Your task to perform on an android device: Open the map Image 0: 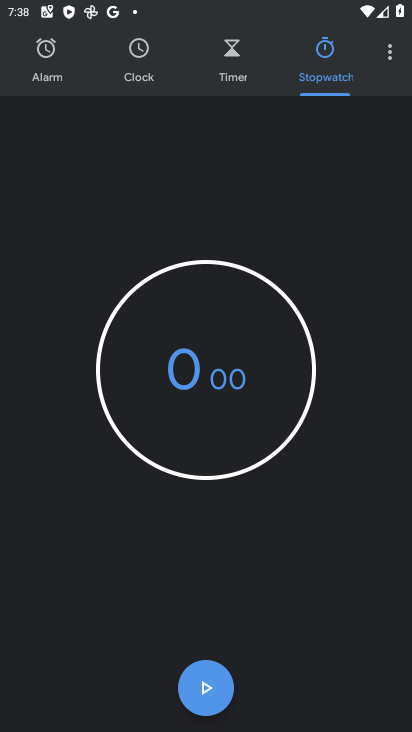
Step 0: press home button
Your task to perform on an android device: Open the map Image 1: 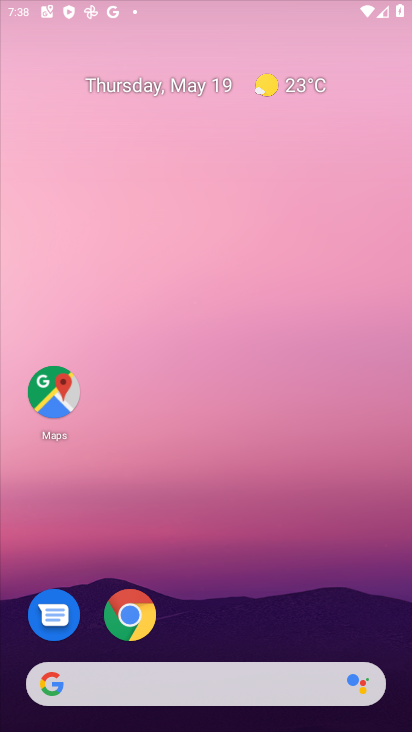
Step 1: drag from (340, 624) to (255, 4)
Your task to perform on an android device: Open the map Image 2: 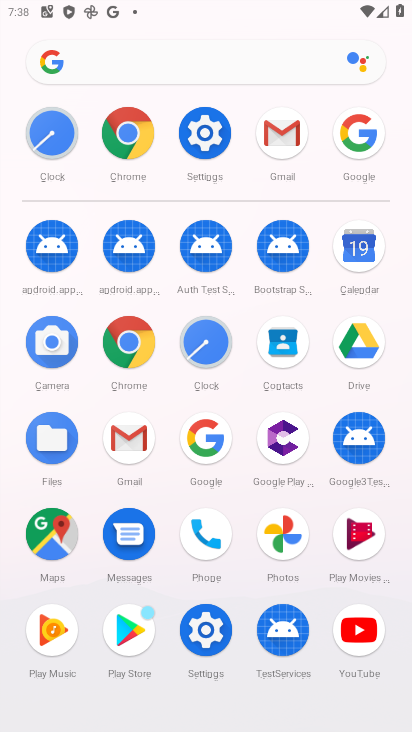
Step 2: click (45, 543)
Your task to perform on an android device: Open the map Image 3: 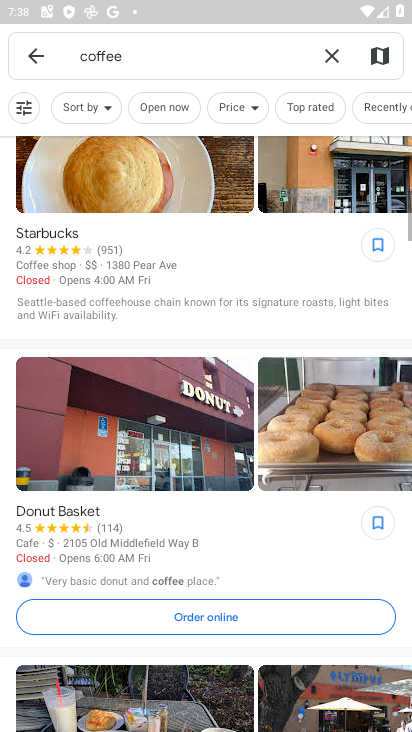
Step 3: click (335, 61)
Your task to perform on an android device: Open the map Image 4: 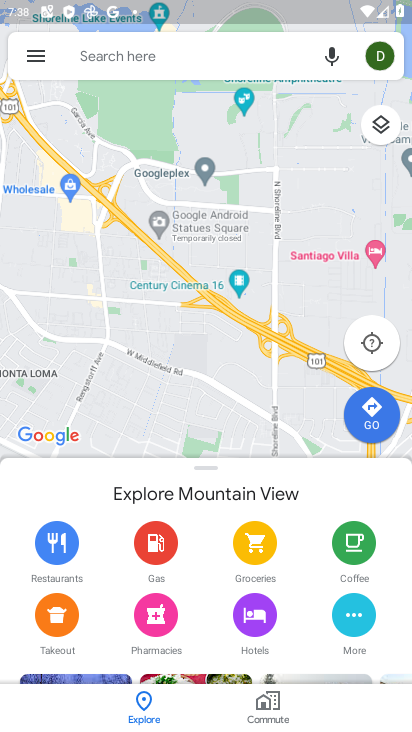
Step 4: task complete